Your task to perform on an android device: add a contact Image 0: 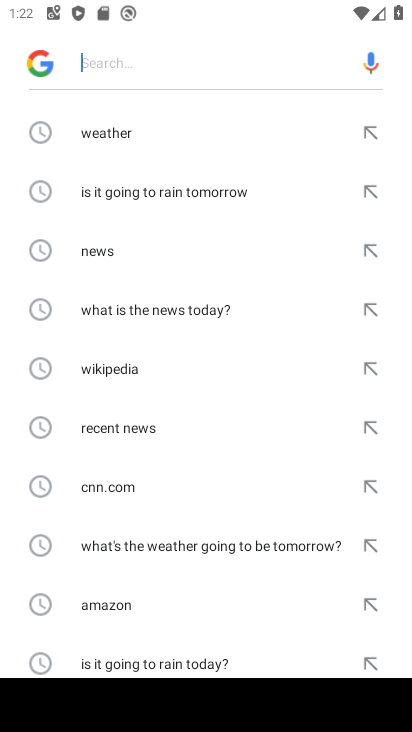
Step 0: press home button
Your task to perform on an android device: add a contact Image 1: 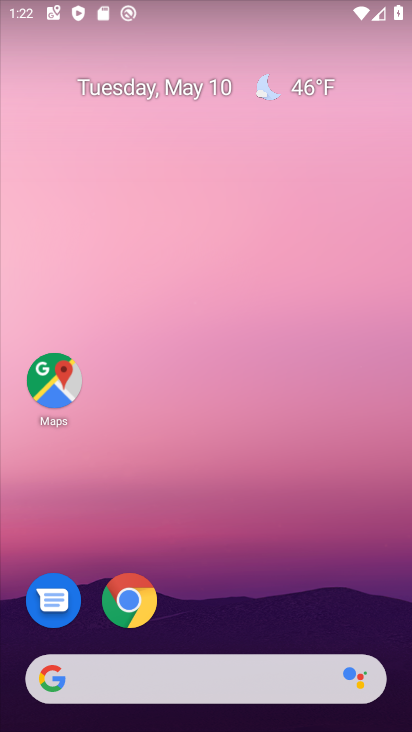
Step 1: drag from (124, 670) to (246, 74)
Your task to perform on an android device: add a contact Image 2: 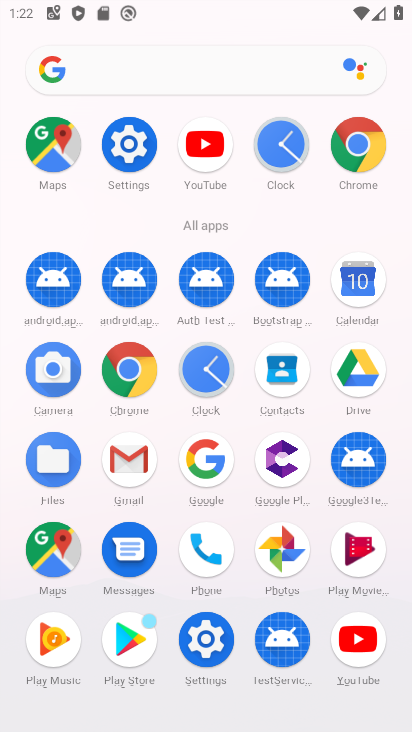
Step 2: click (286, 380)
Your task to perform on an android device: add a contact Image 3: 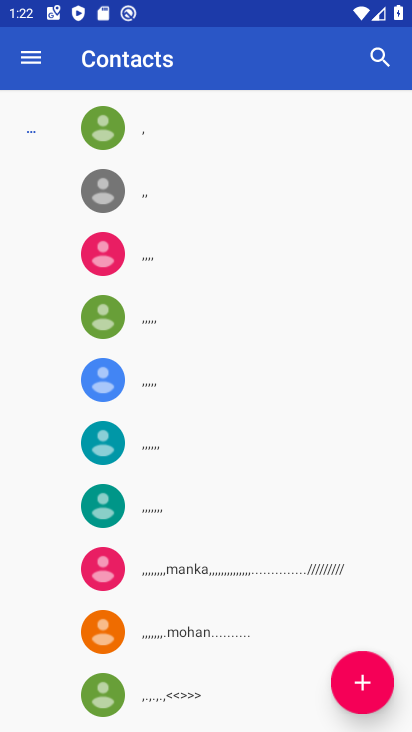
Step 3: click (362, 690)
Your task to perform on an android device: add a contact Image 4: 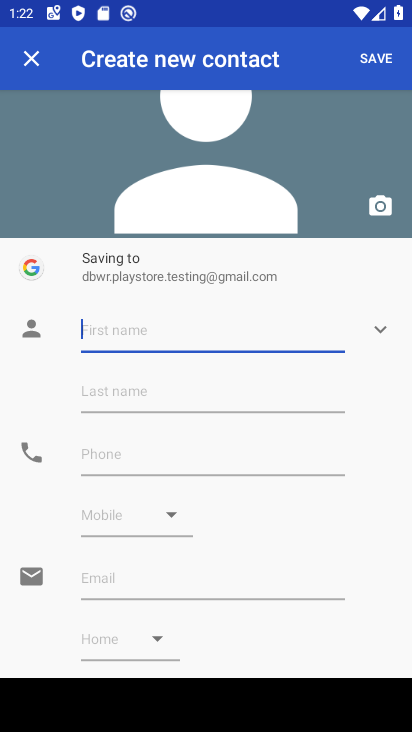
Step 4: type "xfdr"
Your task to perform on an android device: add a contact Image 5: 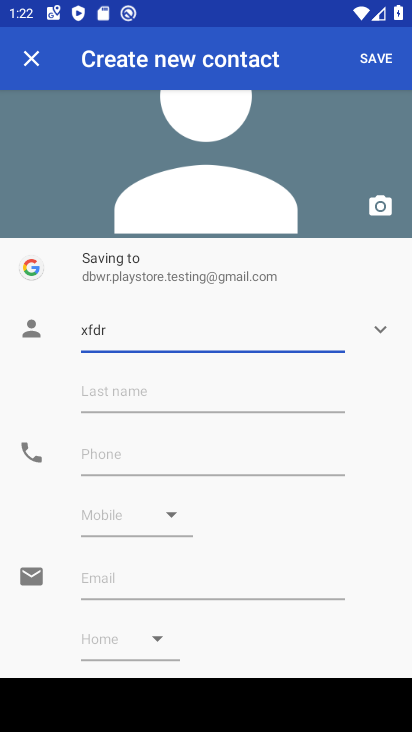
Step 5: click (100, 457)
Your task to perform on an android device: add a contact Image 6: 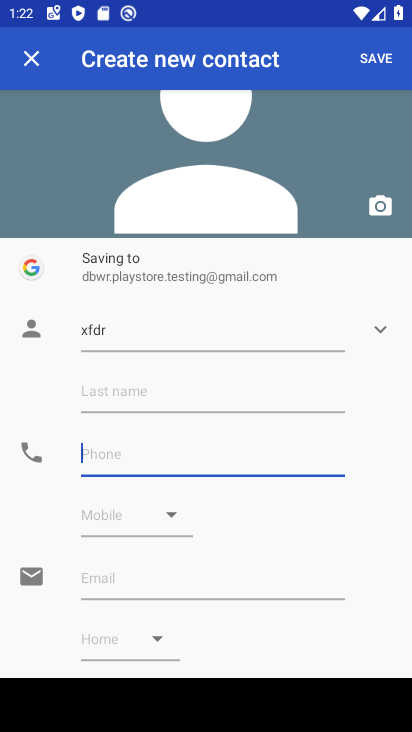
Step 6: type "3214"
Your task to perform on an android device: add a contact Image 7: 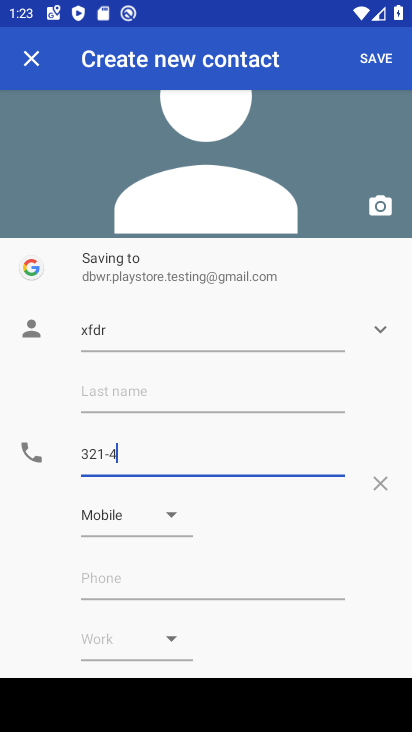
Step 7: click (374, 60)
Your task to perform on an android device: add a contact Image 8: 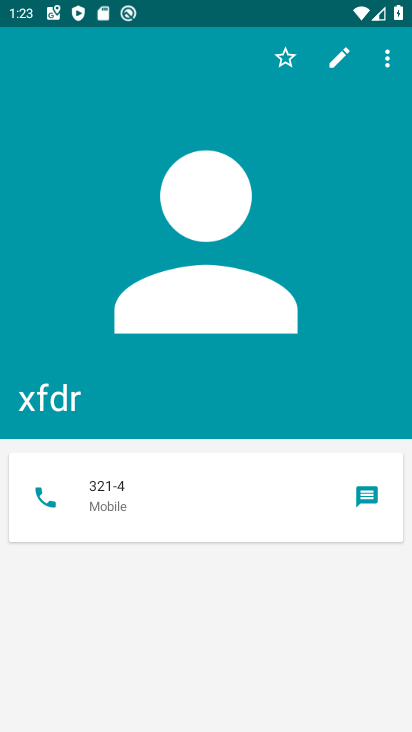
Step 8: task complete